Your task to perform on an android device: toggle show notifications on the lock screen Image 0: 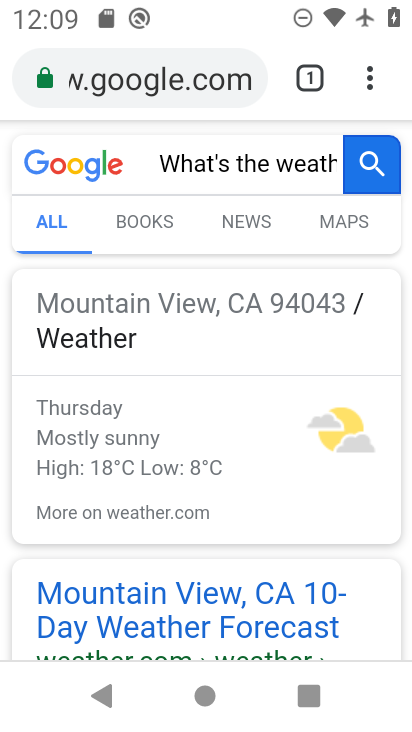
Step 0: press back button
Your task to perform on an android device: toggle show notifications on the lock screen Image 1: 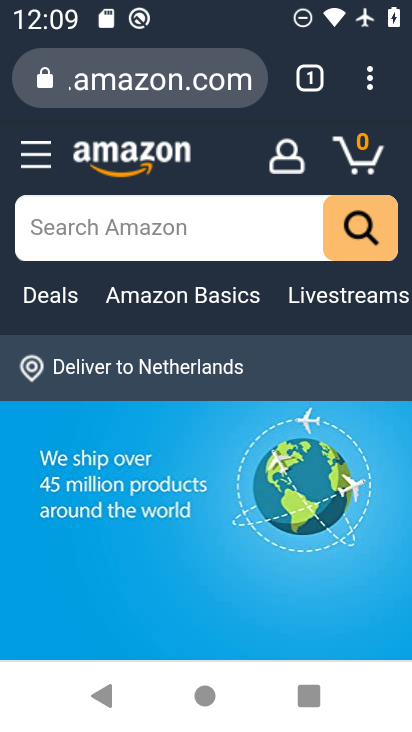
Step 1: press back button
Your task to perform on an android device: toggle show notifications on the lock screen Image 2: 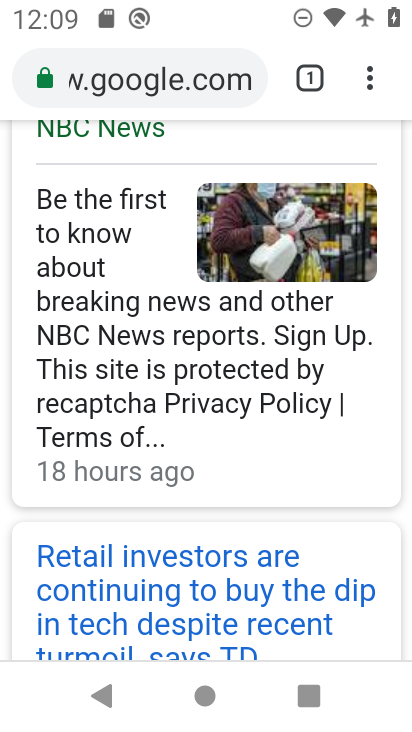
Step 2: press home button
Your task to perform on an android device: toggle show notifications on the lock screen Image 3: 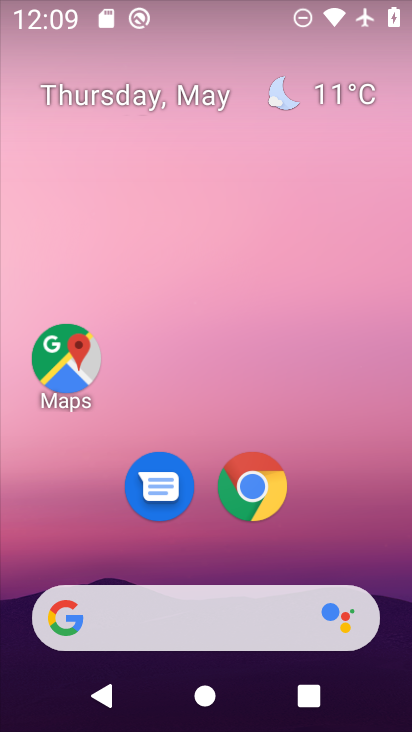
Step 3: drag from (338, 565) to (261, 32)
Your task to perform on an android device: toggle show notifications on the lock screen Image 4: 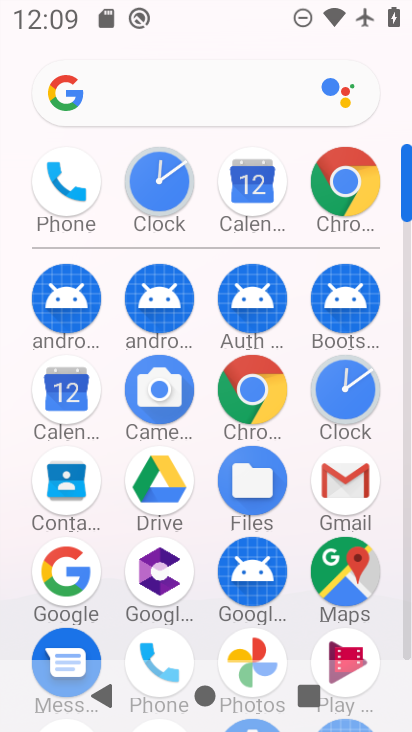
Step 4: drag from (13, 601) to (0, 297)
Your task to perform on an android device: toggle show notifications on the lock screen Image 5: 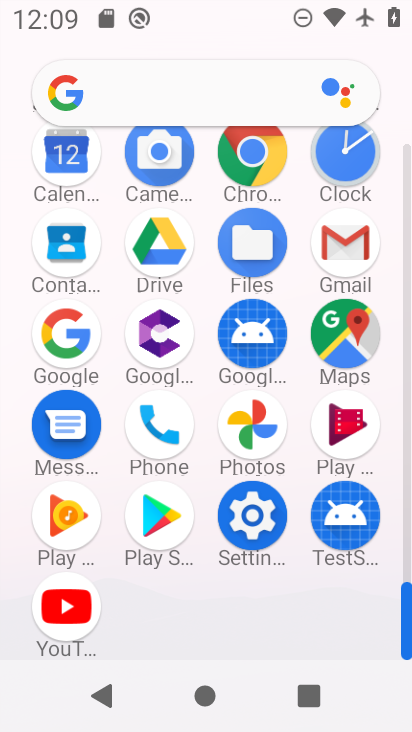
Step 5: click (250, 506)
Your task to perform on an android device: toggle show notifications on the lock screen Image 6: 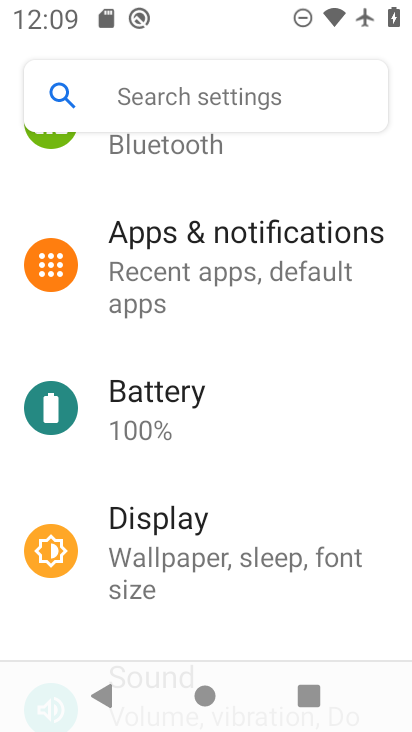
Step 6: drag from (294, 187) to (316, 587)
Your task to perform on an android device: toggle show notifications on the lock screen Image 7: 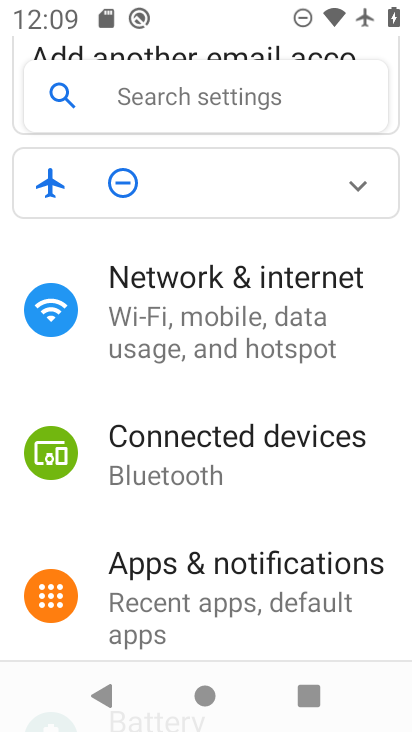
Step 7: drag from (313, 587) to (308, 202)
Your task to perform on an android device: toggle show notifications on the lock screen Image 8: 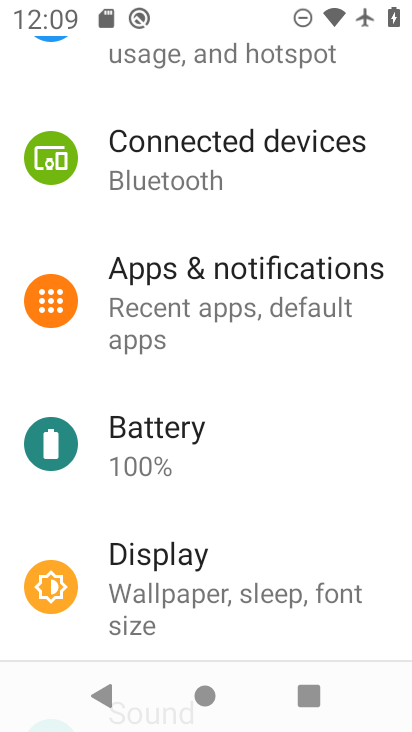
Step 8: click (238, 281)
Your task to perform on an android device: toggle show notifications on the lock screen Image 9: 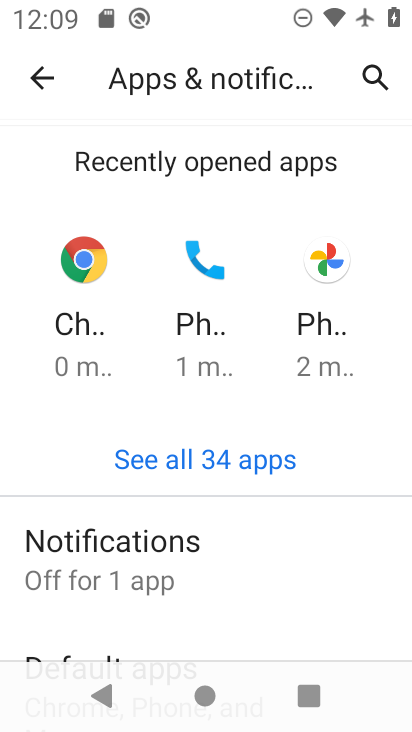
Step 9: click (312, 558)
Your task to perform on an android device: toggle show notifications on the lock screen Image 10: 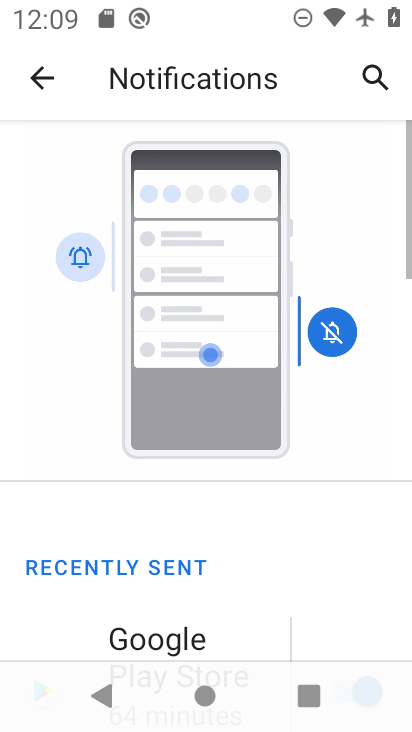
Step 10: drag from (282, 579) to (272, 128)
Your task to perform on an android device: toggle show notifications on the lock screen Image 11: 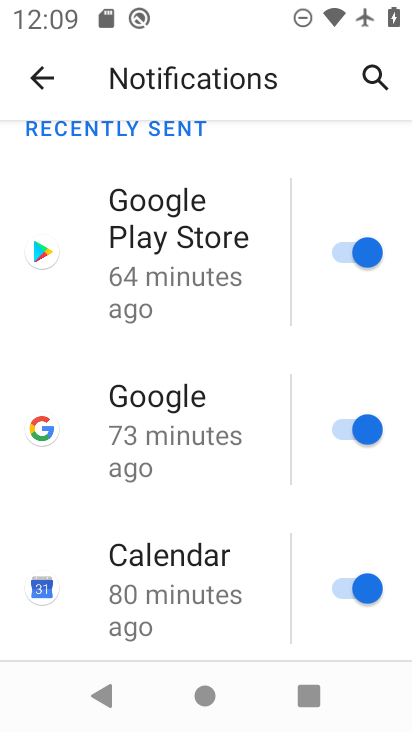
Step 11: drag from (183, 599) to (258, 170)
Your task to perform on an android device: toggle show notifications on the lock screen Image 12: 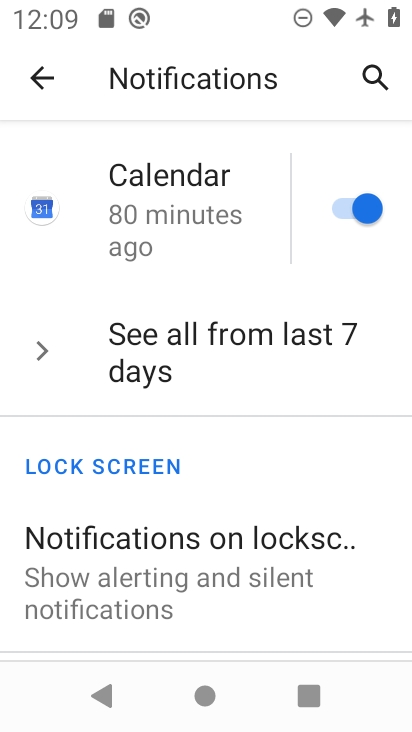
Step 12: click (259, 538)
Your task to perform on an android device: toggle show notifications on the lock screen Image 13: 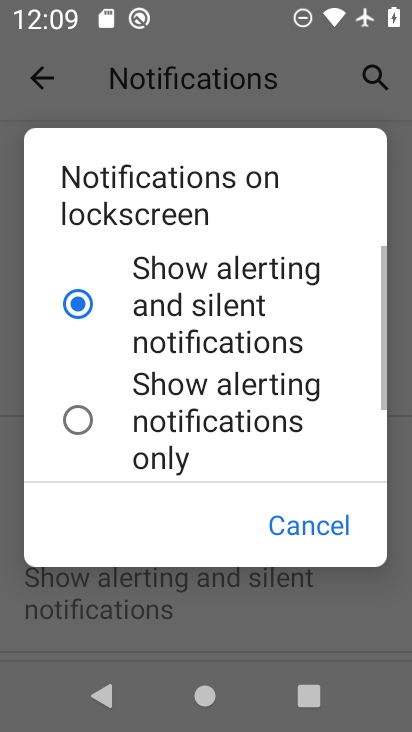
Step 13: click (187, 289)
Your task to perform on an android device: toggle show notifications on the lock screen Image 14: 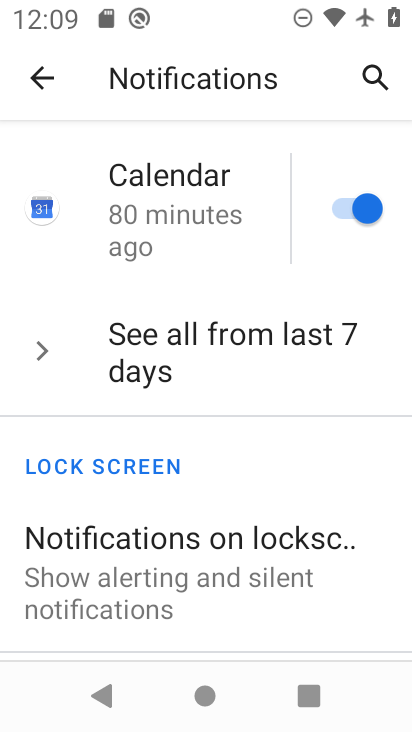
Step 14: task complete